Your task to perform on an android device: open chrome and create a bookmark for the current page Image 0: 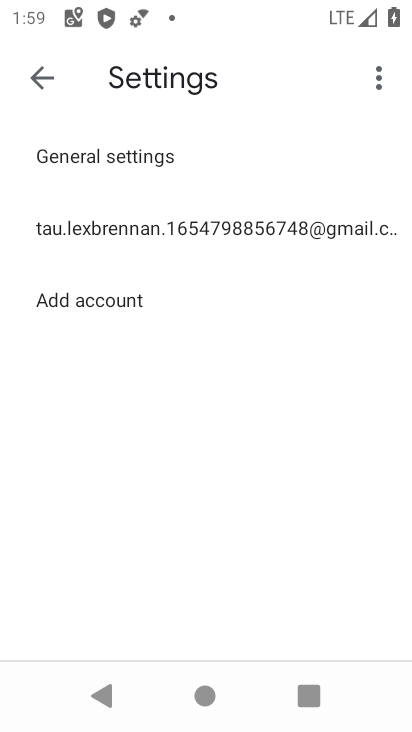
Step 0: press home button
Your task to perform on an android device: open chrome and create a bookmark for the current page Image 1: 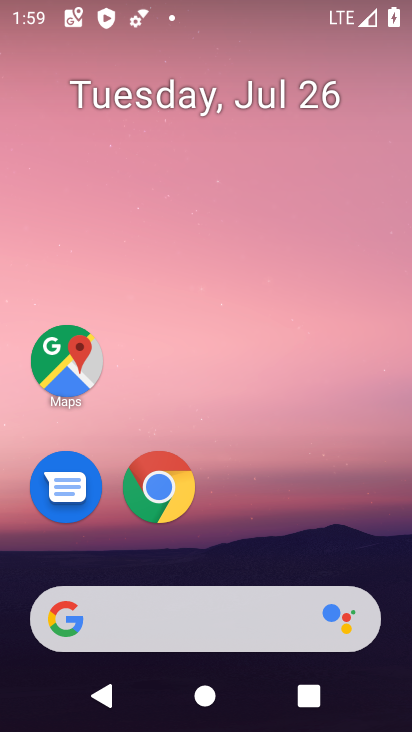
Step 1: drag from (189, 601) to (273, 227)
Your task to perform on an android device: open chrome and create a bookmark for the current page Image 2: 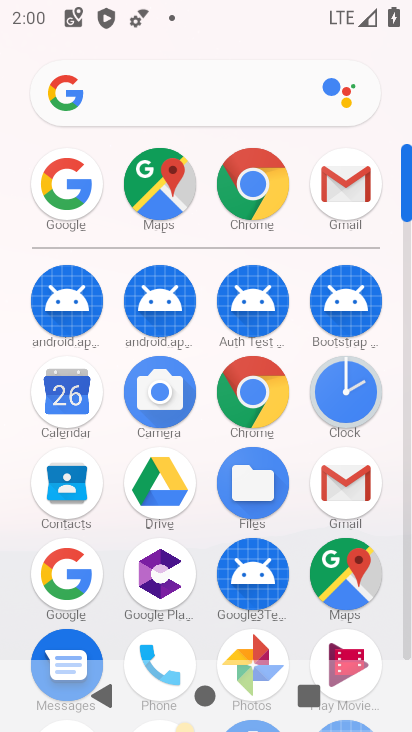
Step 2: click (246, 200)
Your task to perform on an android device: open chrome and create a bookmark for the current page Image 3: 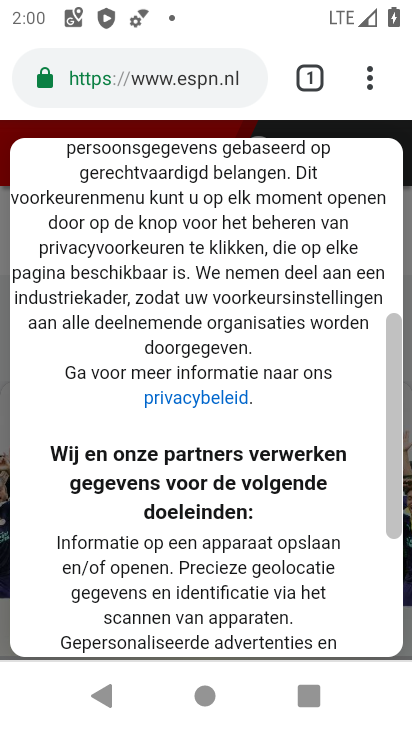
Step 3: click (365, 88)
Your task to perform on an android device: open chrome and create a bookmark for the current page Image 4: 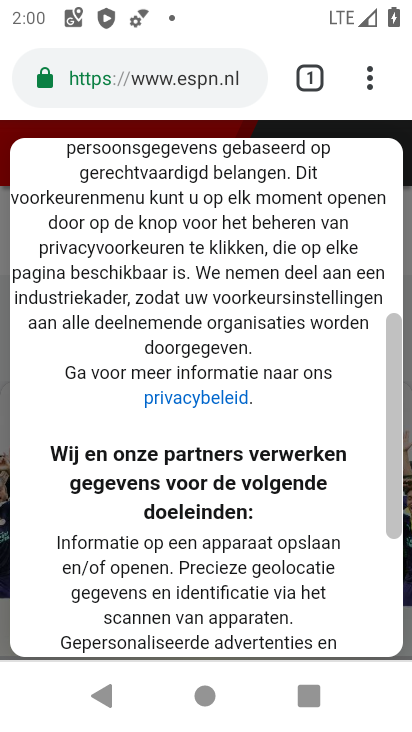
Step 4: click (371, 78)
Your task to perform on an android device: open chrome and create a bookmark for the current page Image 5: 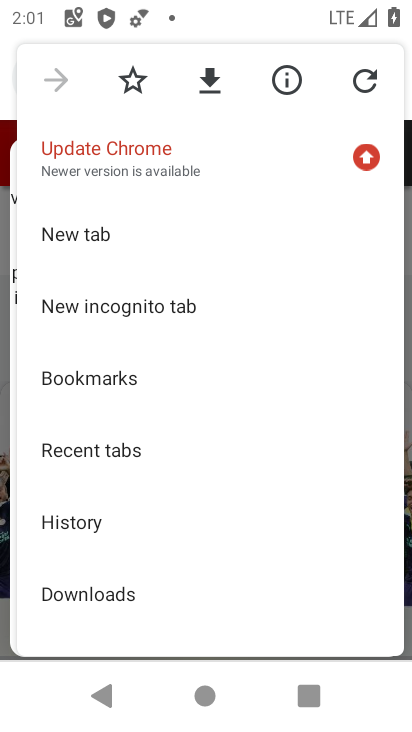
Step 5: click (139, 87)
Your task to perform on an android device: open chrome and create a bookmark for the current page Image 6: 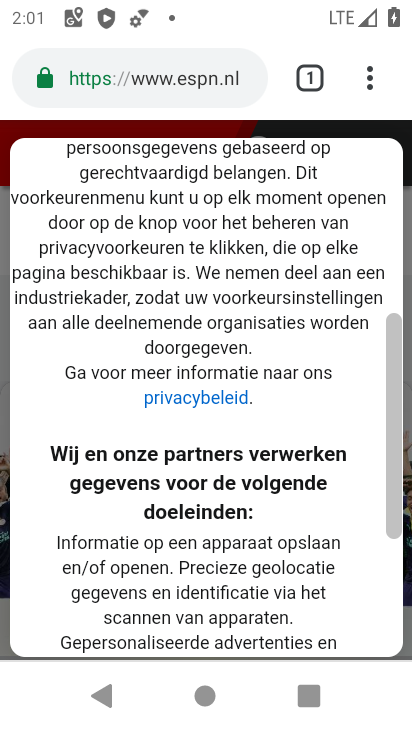
Step 6: task complete